Your task to perform on an android device: Empty the shopping cart on walmart. Search for "lg ultragear" on walmart, select the first entry, add it to the cart, then select checkout. Image 0: 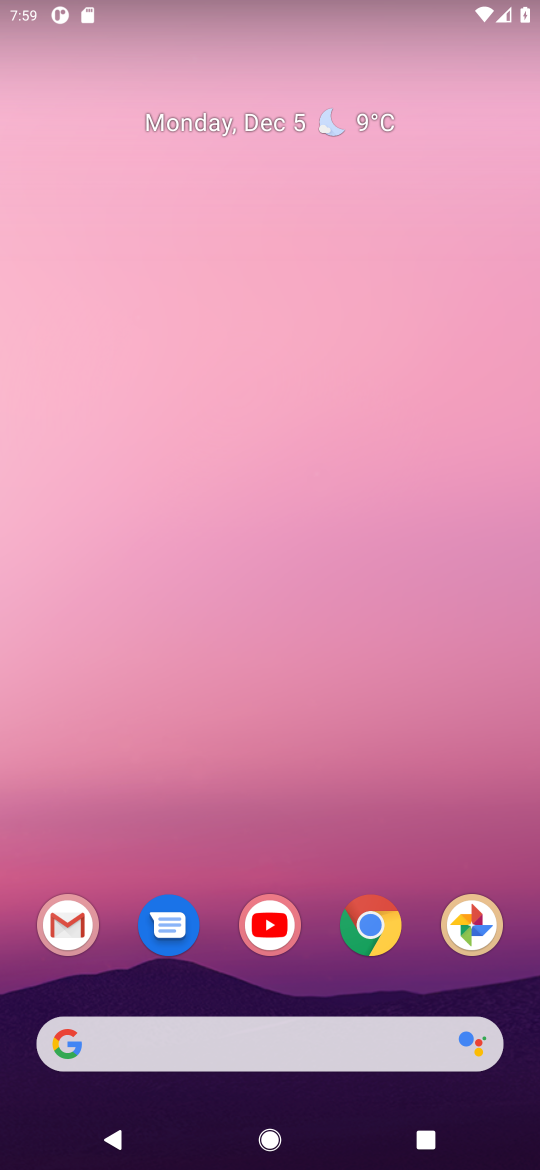
Step 0: click (374, 932)
Your task to perform on an android device: Empty the shopping cart on walmart. Search for "lg ultragear" on walmart, select the first entry, add it to the cart, then select checkout. Image 1: 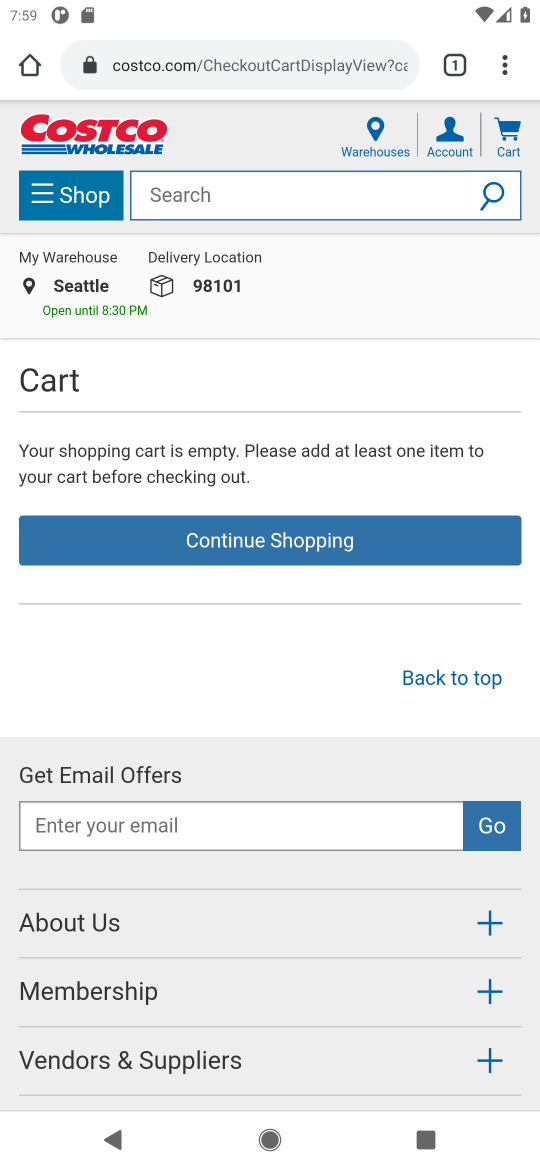
Step 1: click (201, 65)
Your task to perform on an android device: Empty the shopping cart on walmart. Search for "lg ultragear" on walmart, select the first entry, add it to the cart, then select checkout. Image 2: 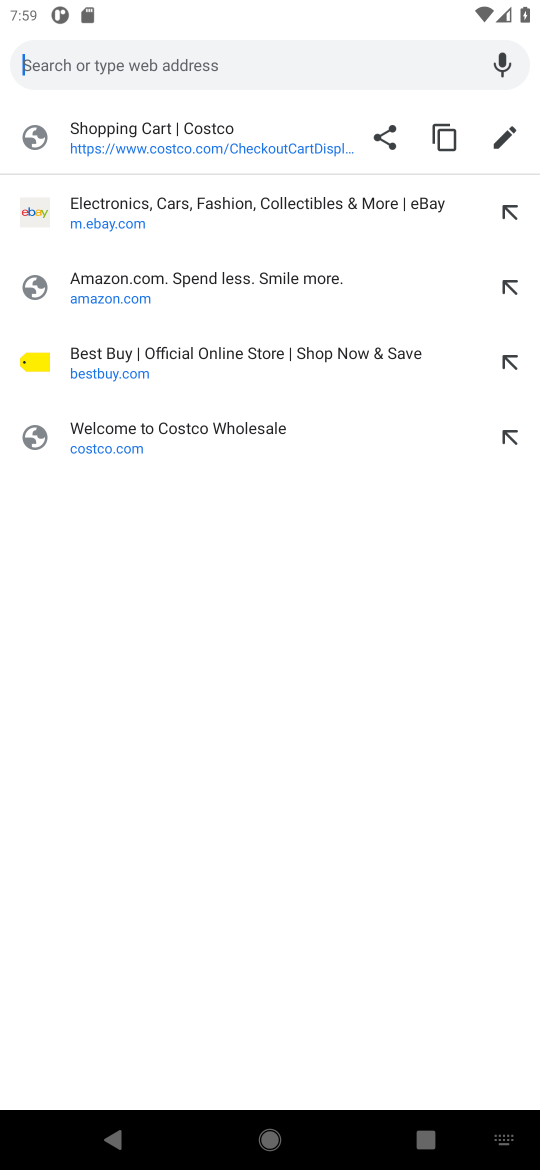
Step 2: type "walmart.com"
Your task to perform on an android device: Empty the shopping cart on walmart. Search for "lg ultragear" on walmart, select the first entry, add it to the cart, then select checkout. Image 3: 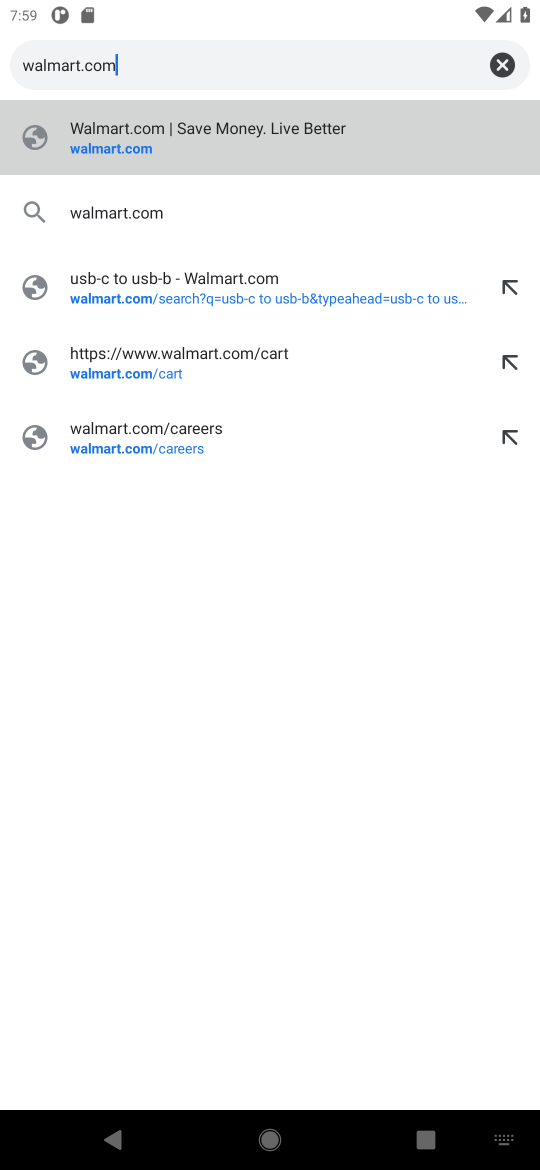
Step 3: click (114, 154)
Your task to perform on an android device: Empty the shopping cart on walmart. Search for "lg ultragear" on walmart, select the first entry, add it to the cart, then select checkout. Image 4: 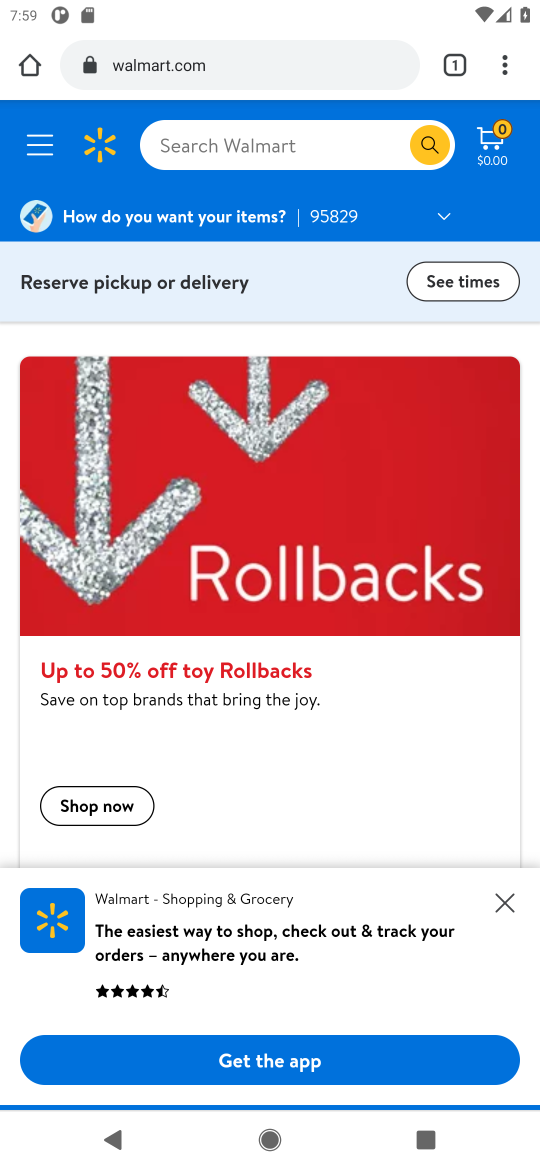
Step 4: click (489, 147)
Your task to perform on an android device: Empty the shopping cart on walmart. Search for "lg ultragear" on walmart, select the first entry, add it to the cart, then select checkout. Image 5: 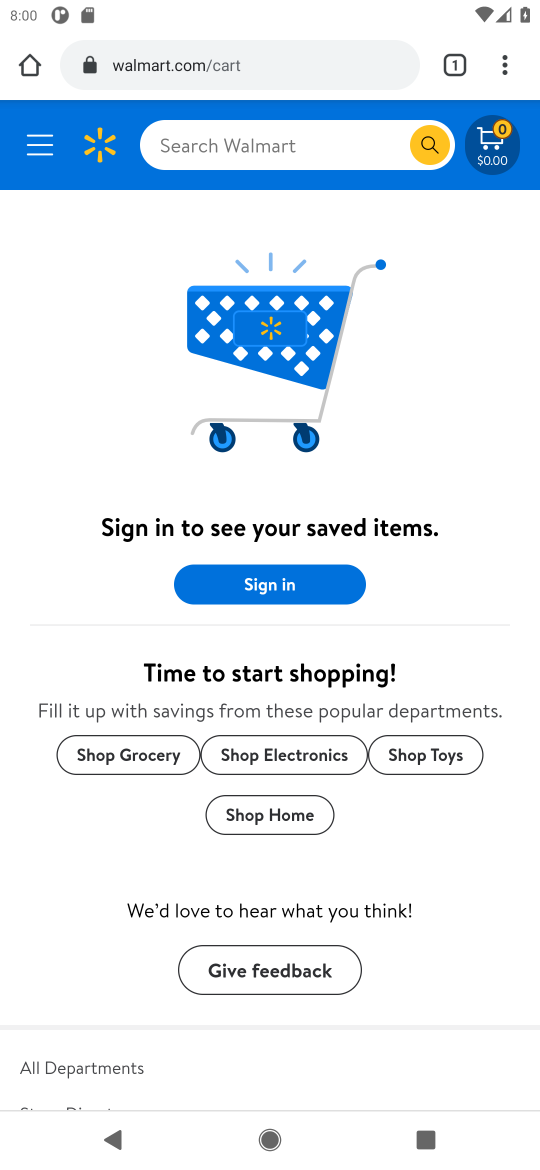
Step 5: click (179, 152)
Your task to perform on an android device: Empty the shopping cart on walmart. Search for "lg ultragear" on walmart, select the first entry, add it to the cart, then select checkout. Image 6: 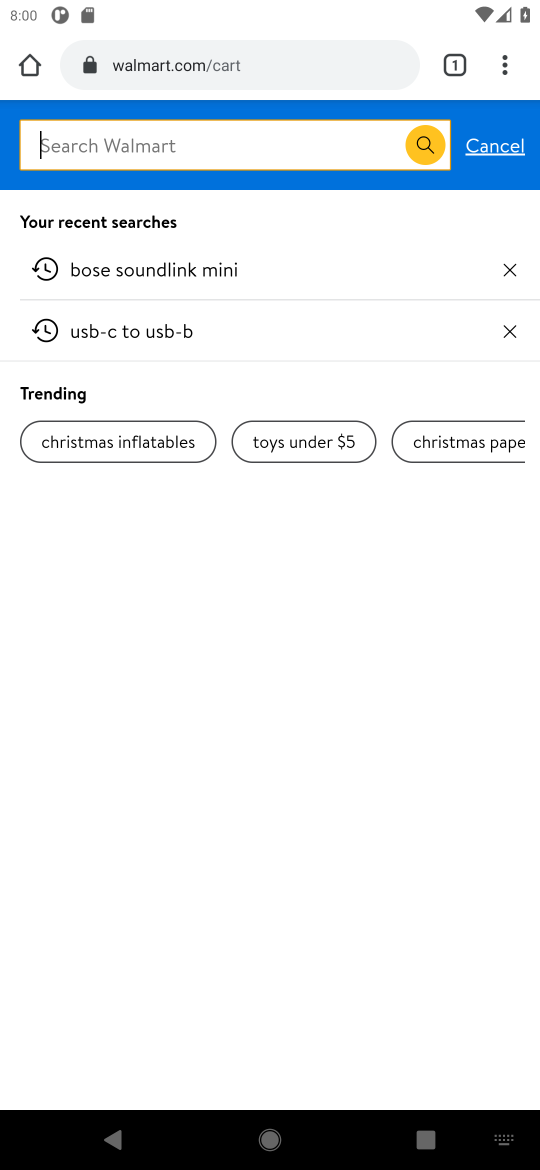
Step 6: type "lg ultragear"
Your task to perform on an android device: Empty the shopping cart on walmart. Search for "lg ultragear" on walmart, select the first entry, add it to the cart, then select checkout. Image 7: 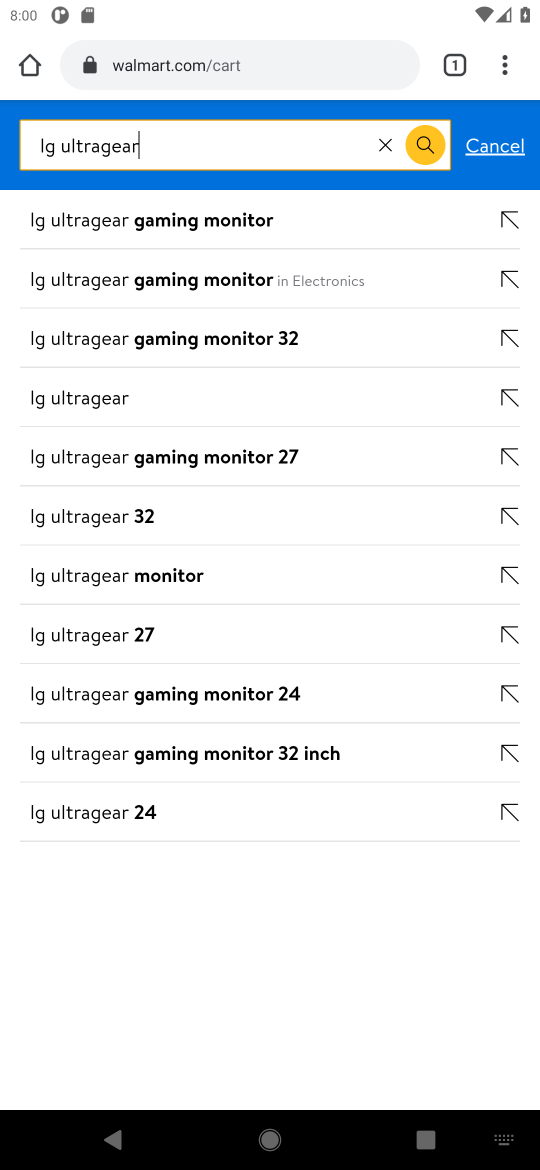
Step 7: click (49, 402)
Your task to perform on an android device: Empty the shopping cart on walmart. Search for "lg ultragear" on walmart, select the first entry, add it to the cart, then select checkout. Image 8: 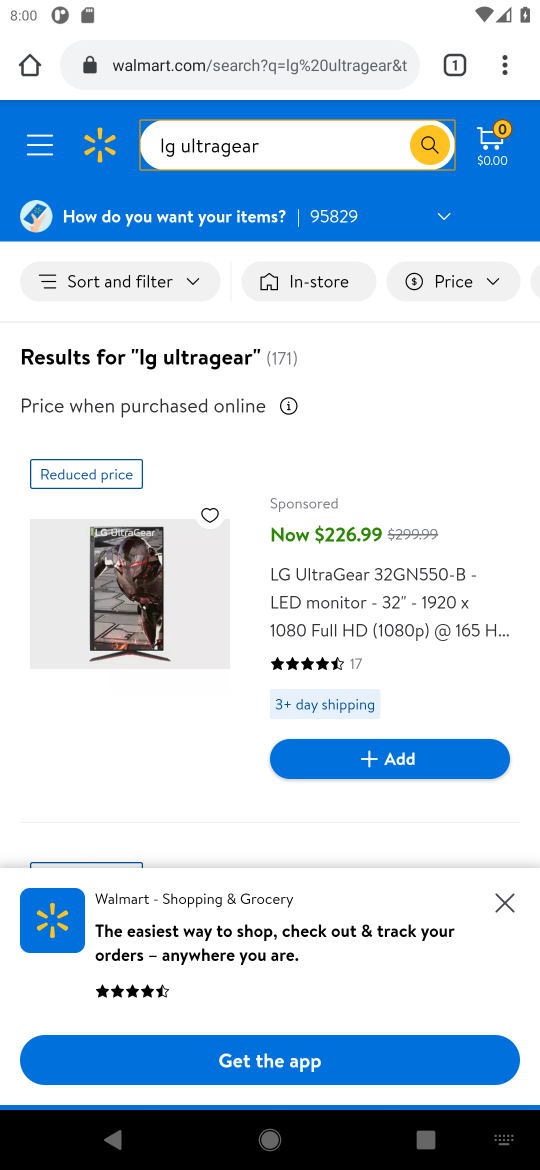
Step 8: click (372, 759)
Your task to perform on an android device: Empty the shopping cart on walmart. Search for "lg ultragear" on walmart, select the first entry, add it to the cart, then select checkout. Image 9: 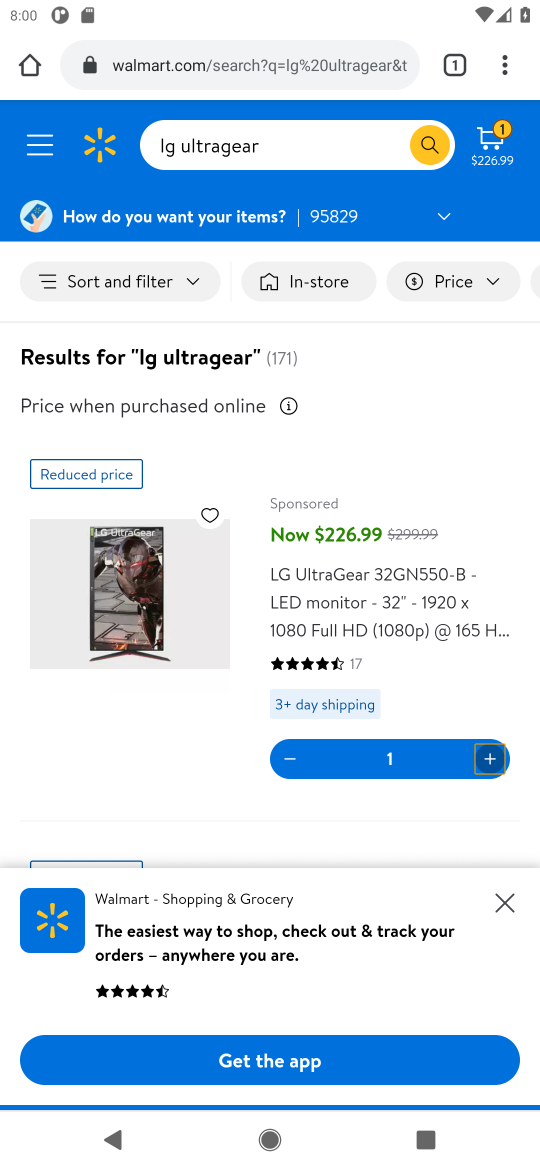
Step 9: click (487, 150)
Your task to perform on an android device: Empty the shopping cart on walmart. Search for "lg ultragear" on walmart, select the first entry, add it to the cart, then select checkout. Image 10: 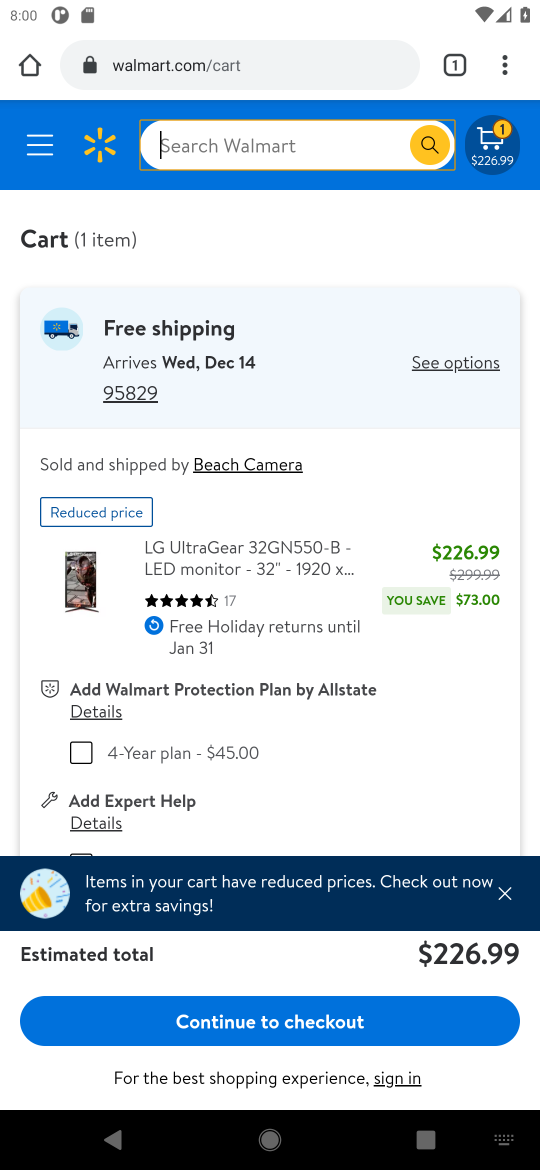
Step 10: click (241, 1034)
Your task to perform on an android device: Empty the shopping cart on walmart. Search for "lg ultragear" on walmart, select the first entry, add it to the cart, then select checkout. Image 11: 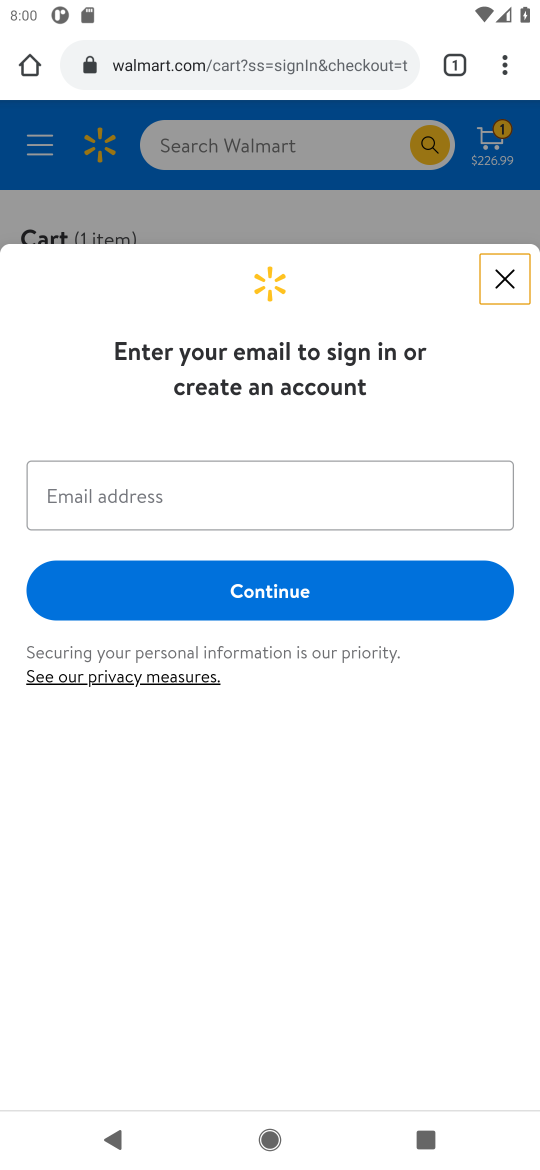
Step 11: task complete